Your task to perform on an android device: choose inbox layout in the gmail app Image 0: 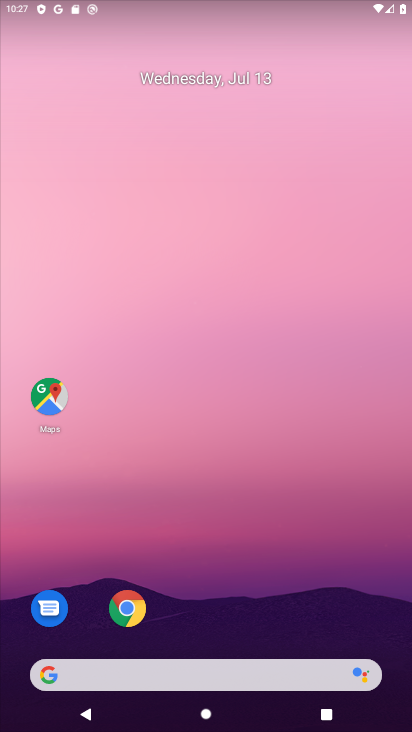
Step 0: drag from (316, 557) to (348, 8)
Your task to perform on an android device: choose inbox layout in the gmail app Image 1: 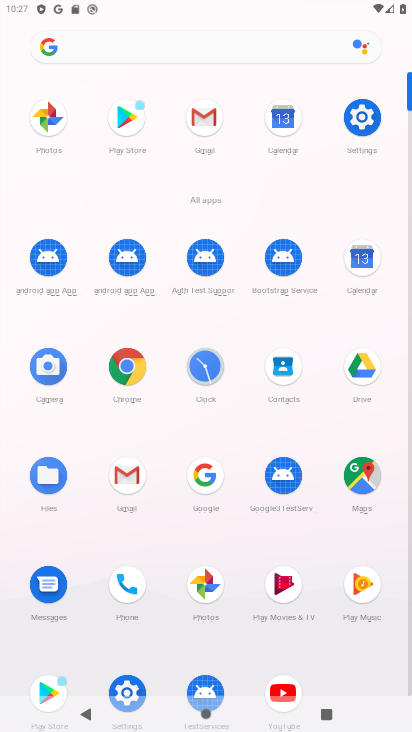
Step 1: click (210, 116)
Your task to perform on an android device: choose inbox layout in the gmail app Image 2: 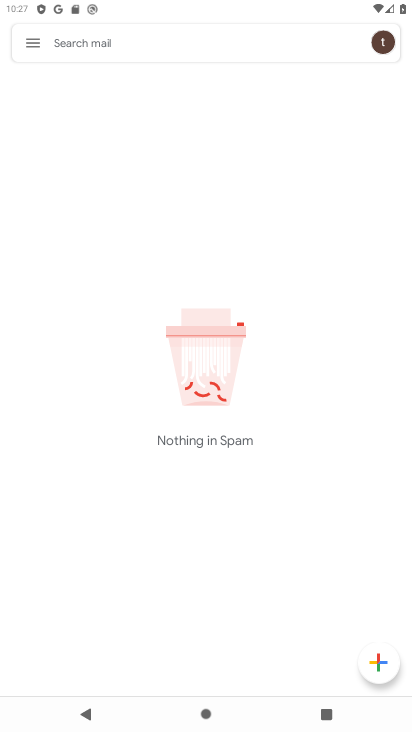
Step 2: click (36, 44)
Your task to perform on an android device: choose inbox layout in the gmail app Image 3: 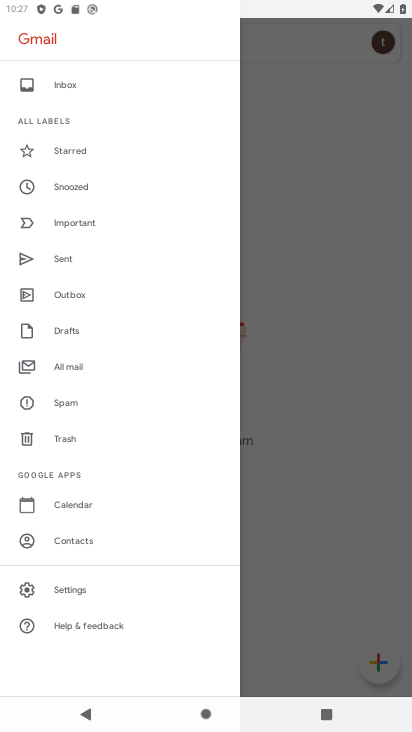
Step 3: click (103, 585)
Your task to perform on an android device: choose inbox layout in the gmail app Image 4: 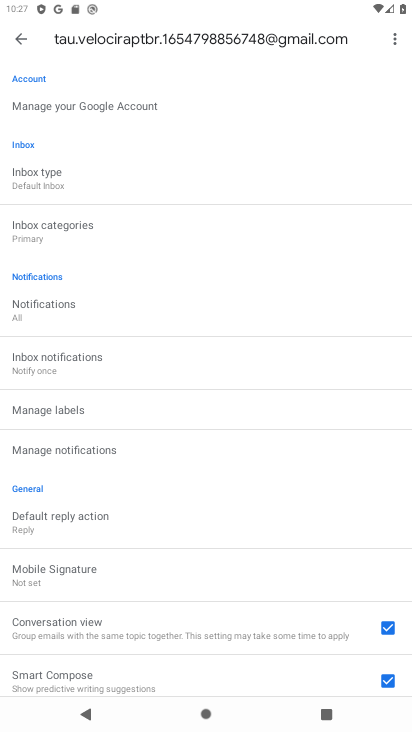
Step 4: click (121, 191)
Your task to perform on an android device: choose inbox layout in the gmail app Image 5: 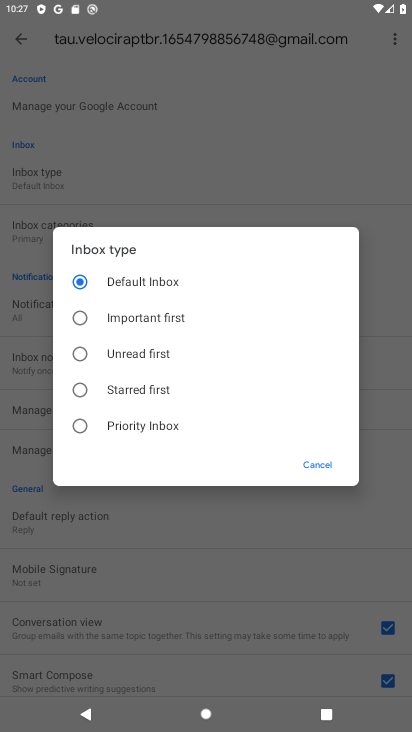
Step 5: click (163, 310)
Your task to perform on an android device: choose inbox layout in the gmail app Image 6: 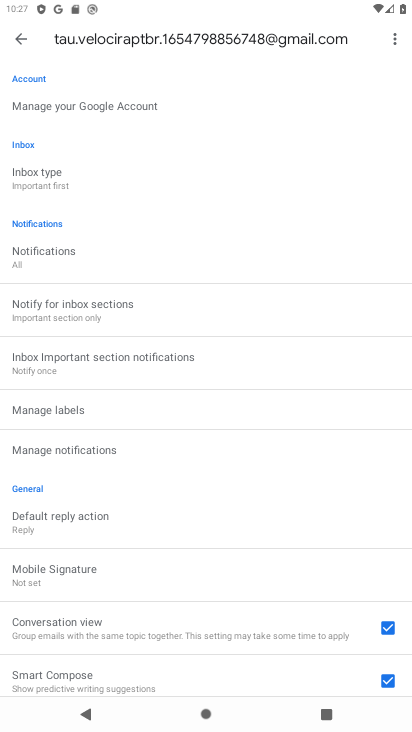
Step 6: task complete